Your task to perform on an android device: open app "Google Keep" Image 0: 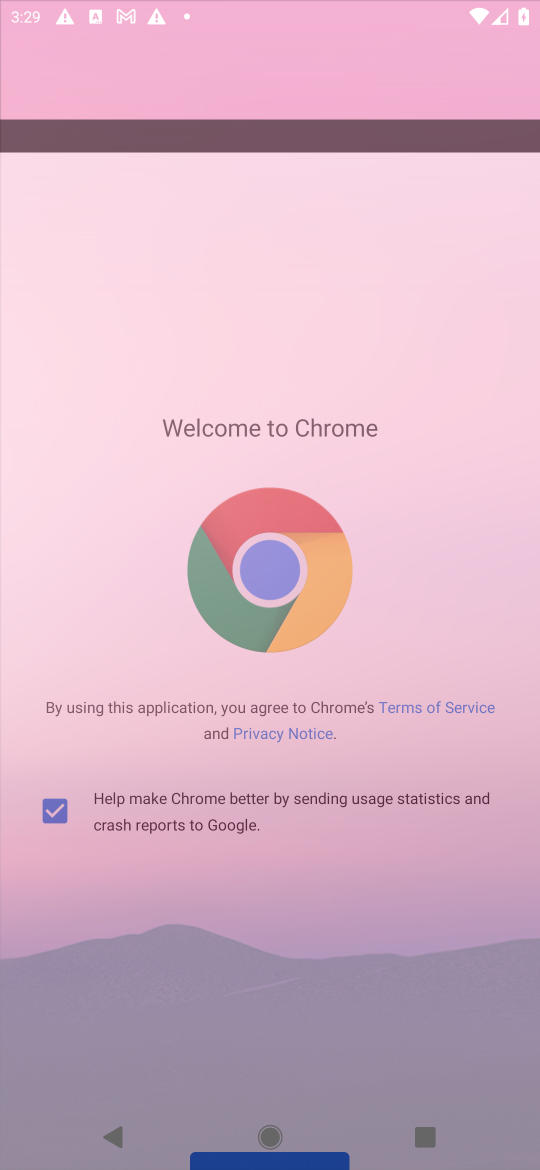
Step 0: press home button
Your task to perform on an android device: open app "Google Keep" Image 1: 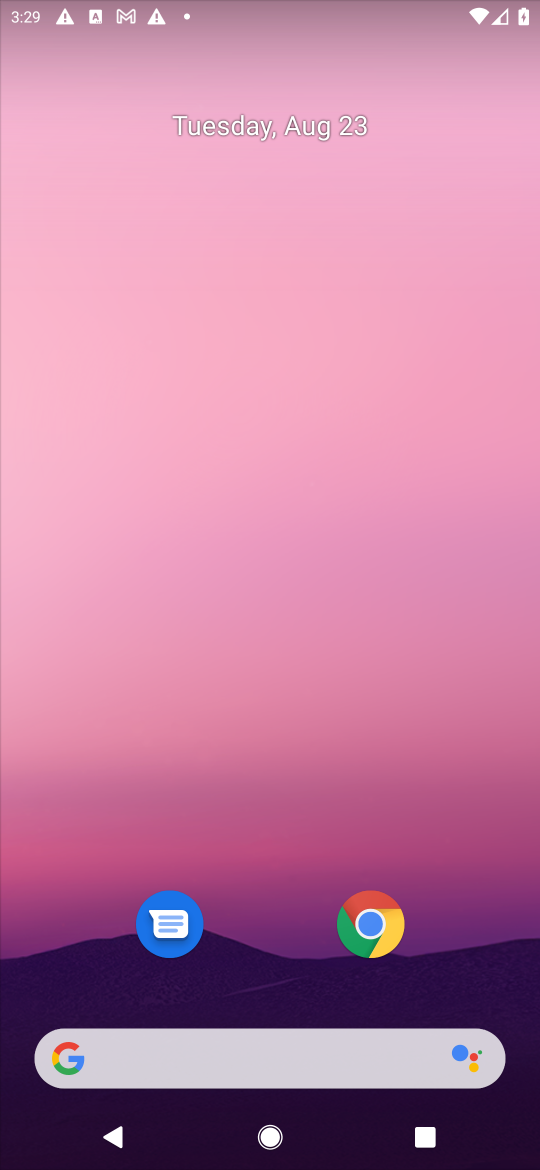
Step 1: drag from (464, 815) to (467, 159)
Your task to perform on an android device: open app "Google Keep" Image 2: 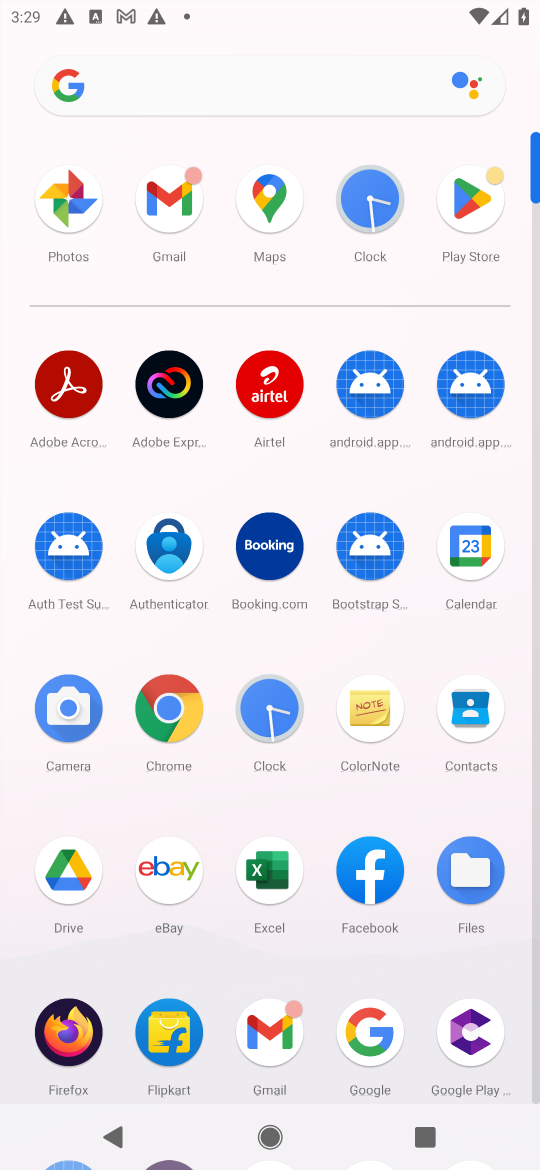
Step 2: click (465, 196)
Your task to perform on an android device: open app "Google Keep" Image 3: 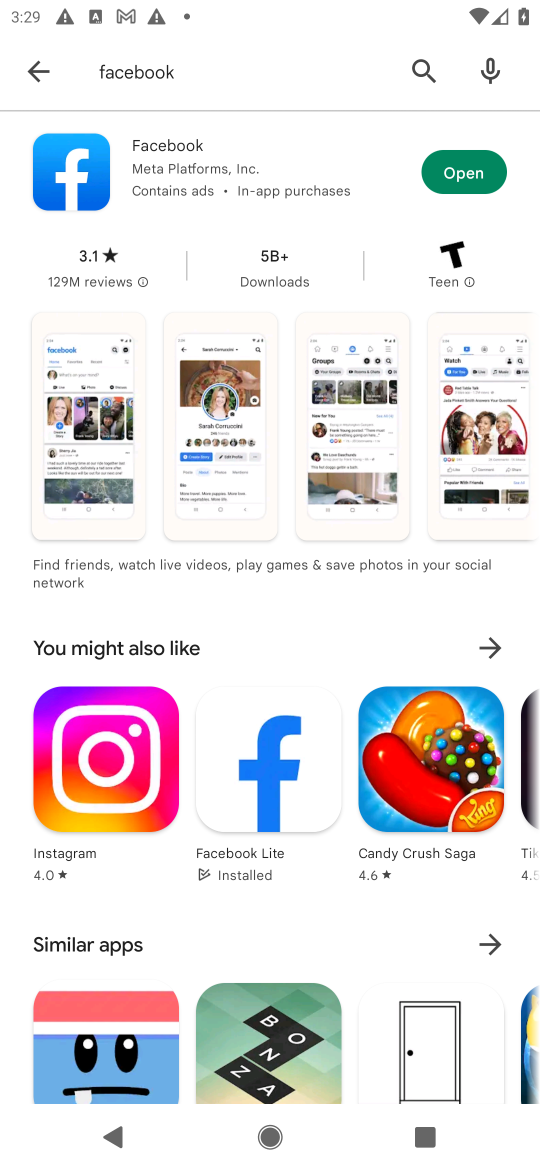
Step 3: press back button
Your task to perform on an android device: open app "Google Keep" Image 4: 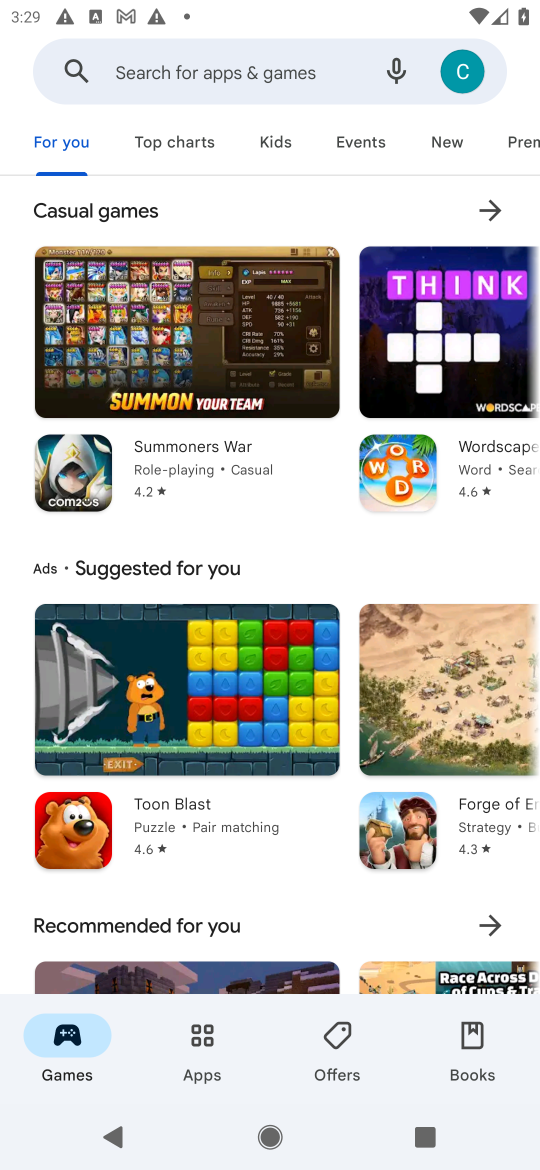
Step 4: click (276, 69)
Your task to perform on an android device: open app "Google Keep" Image 5: 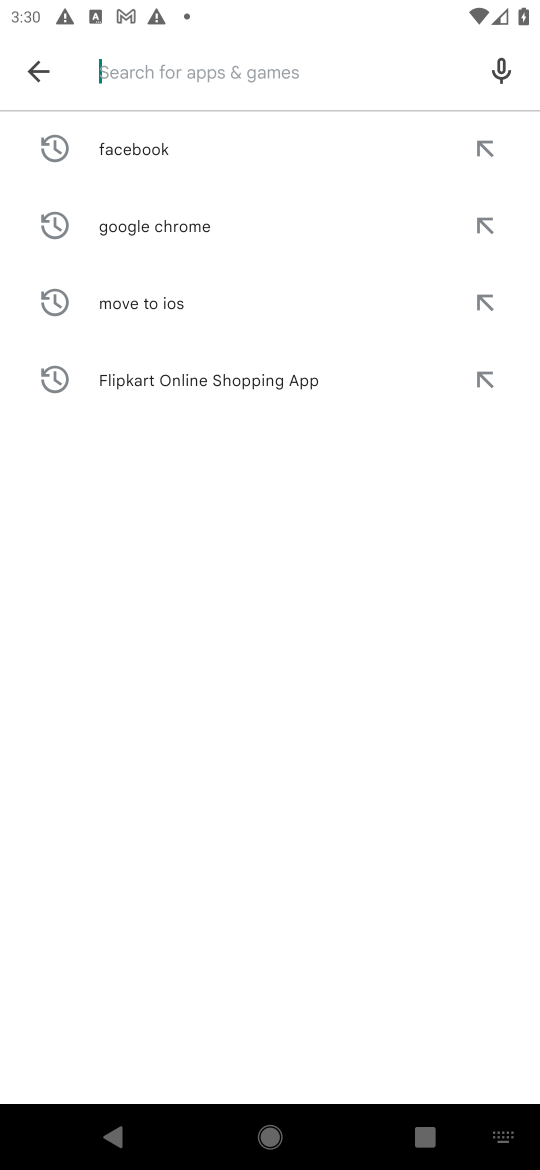
Step 5: press enter
Your task to perform on an android device: open app "Google Keep" Image 6: 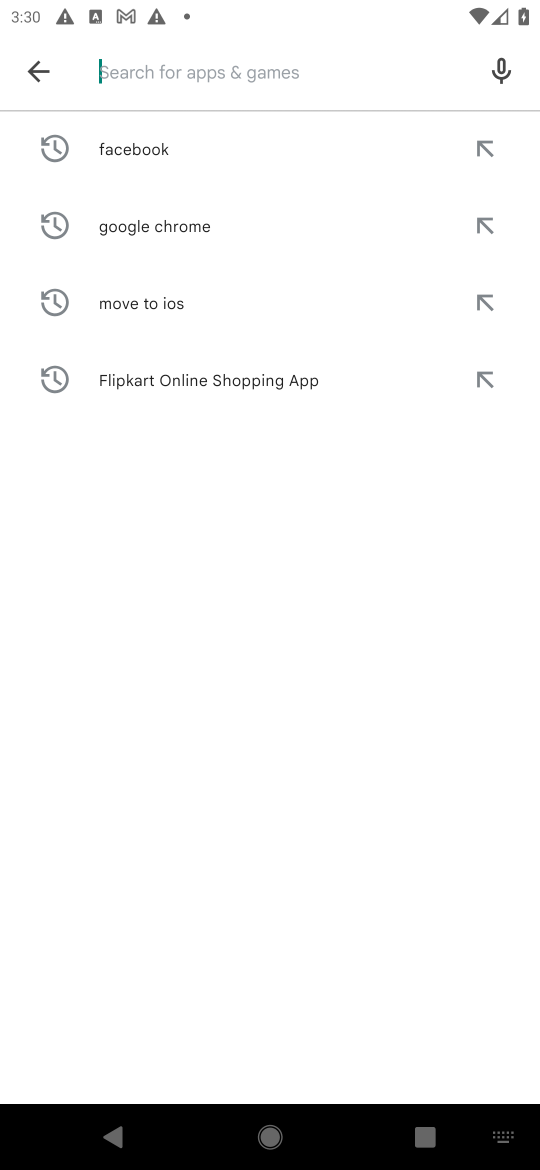
Step 6: type "google keep"
Your task to perform on an android device: open app "Google Keep" Image 7: 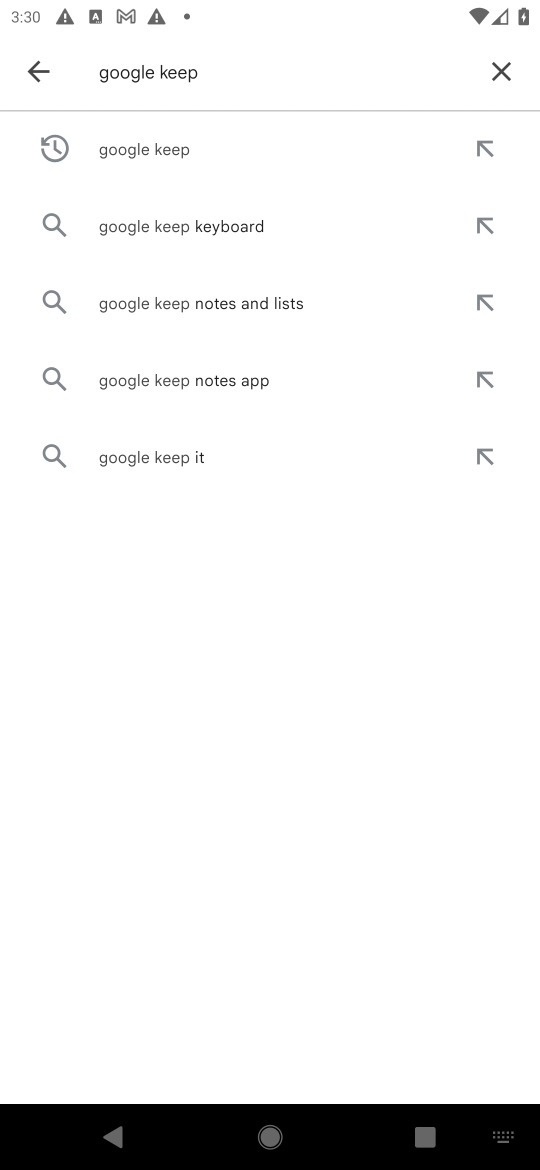
Step 7: click (188, 142)
Your task to perform on an android device: open app "Google Keep" Image 8: 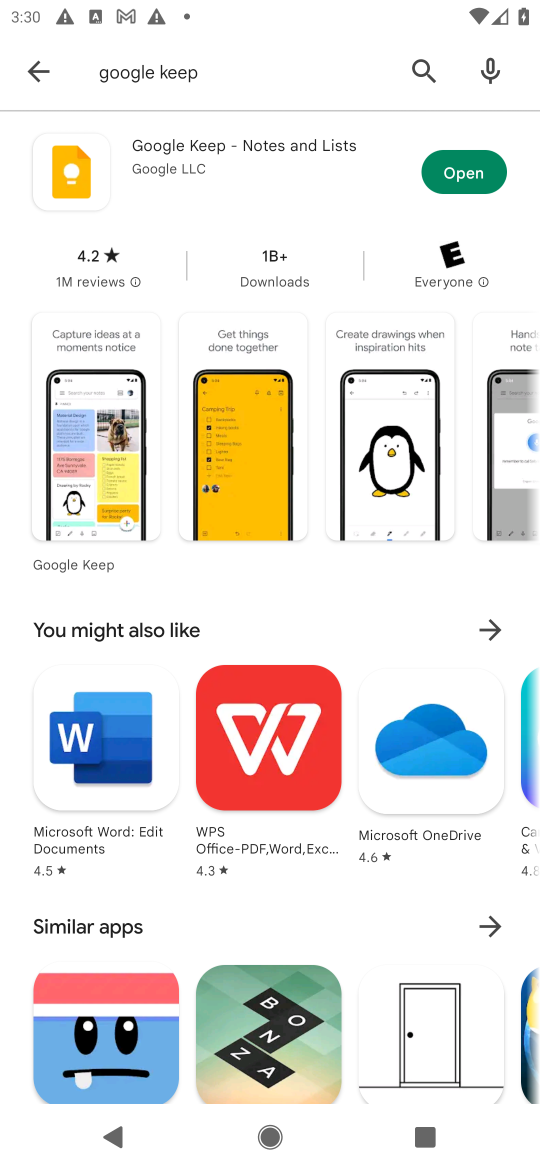
Step 8: click (469, 170)
Your task to perform on an android device: open app "Google Keep" Image 9: 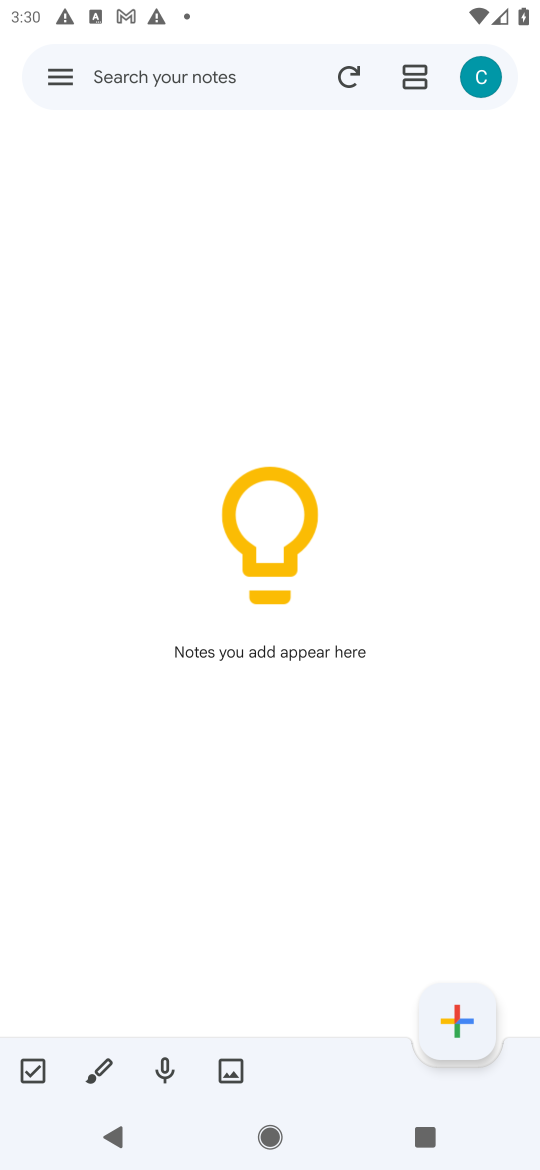
Step 9: task complete